Your task to perform on an android device: turn on location history Image 0: 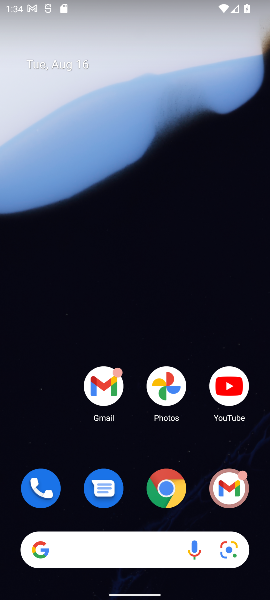
Step 0: drag from (184, 323) to (221, 137)
Your task to perform on an android device: turn on location history Image 1: 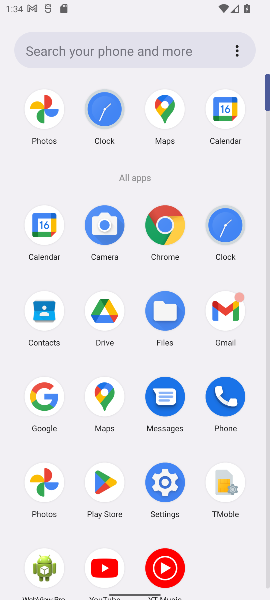
Step 1: task complete